Your task to perform on an android device: Show me recent news Image 0: 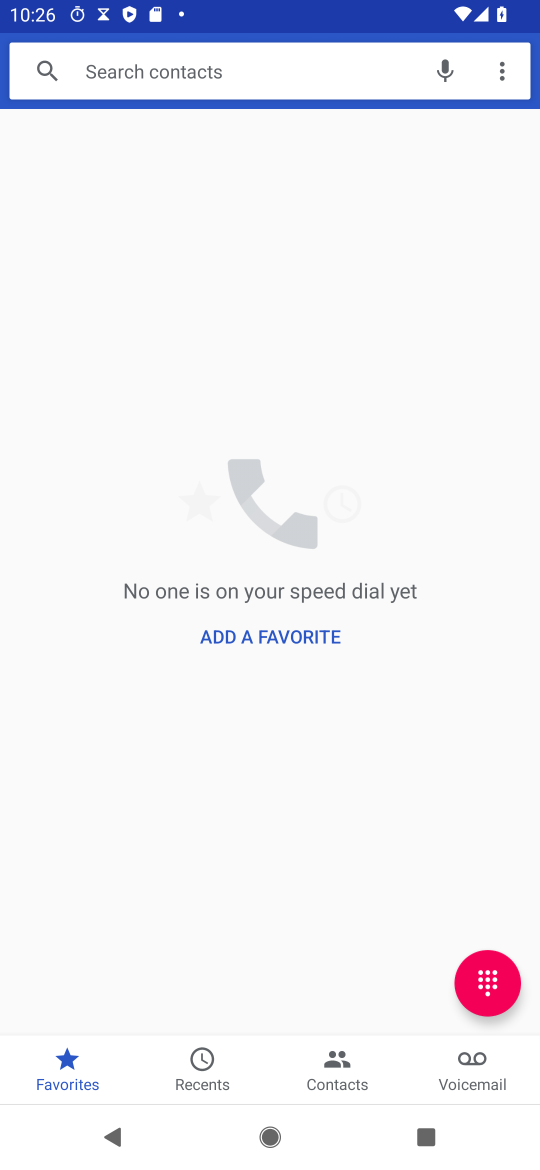
Step 0: press back button
Your task to perform on an android device: Show me recent news Image 1: 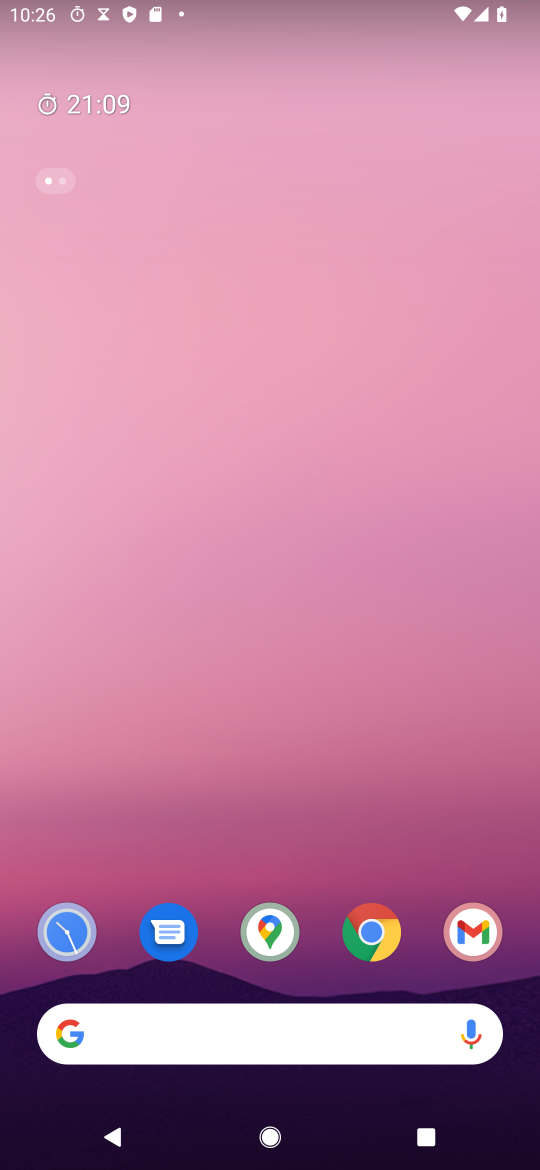
Step 1: click (386, 935)
Your task to perform on an android device: Show me recent news Image 2: 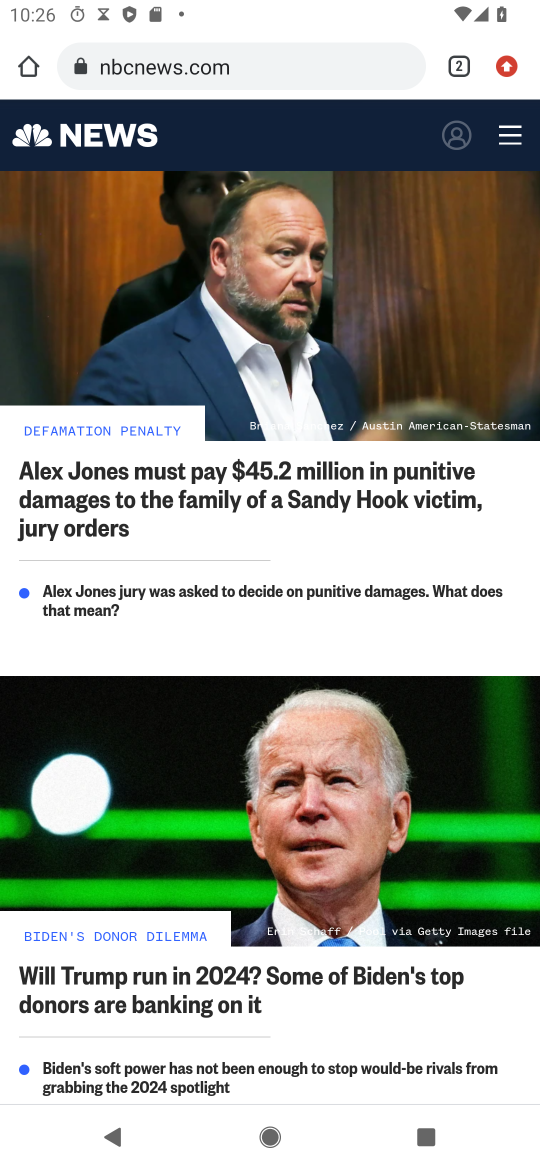
Step 2: click (212, 54)
Your task to perform on an android device: Show me recent news Image 3: 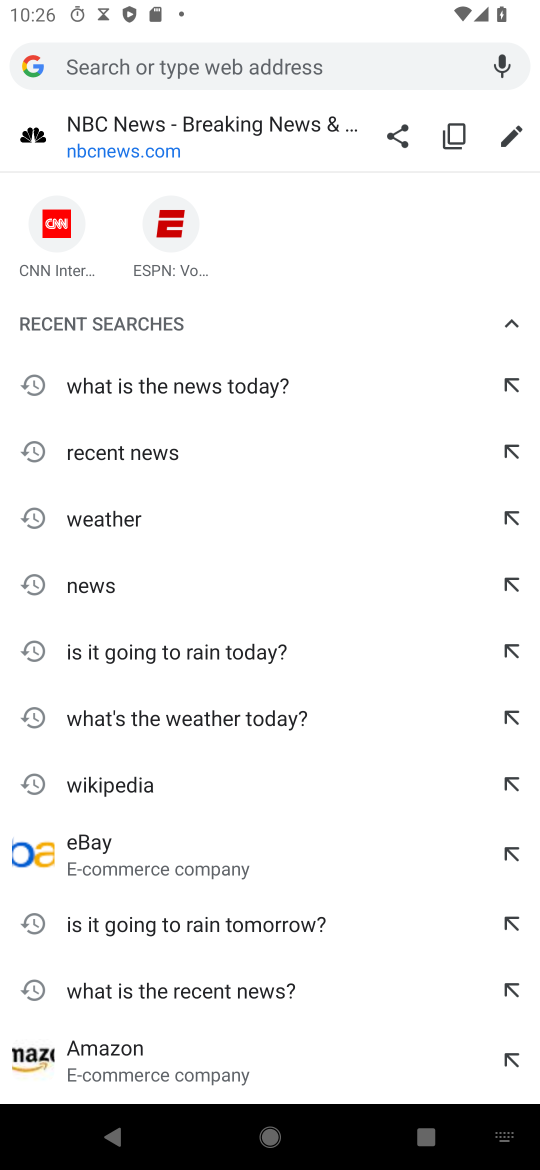
Step 3: click (182, 454)
Your task to perform on an android device: Show me recent news Image 4: 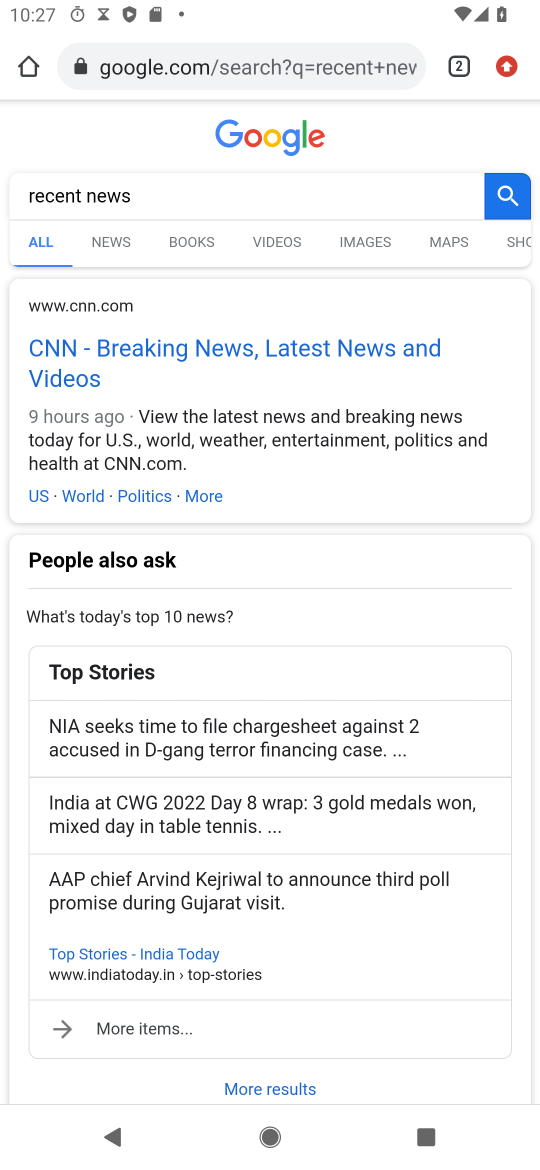
Step 4: click (220, 340)
Your task to perform on an android device: Show me recent news Image 5: 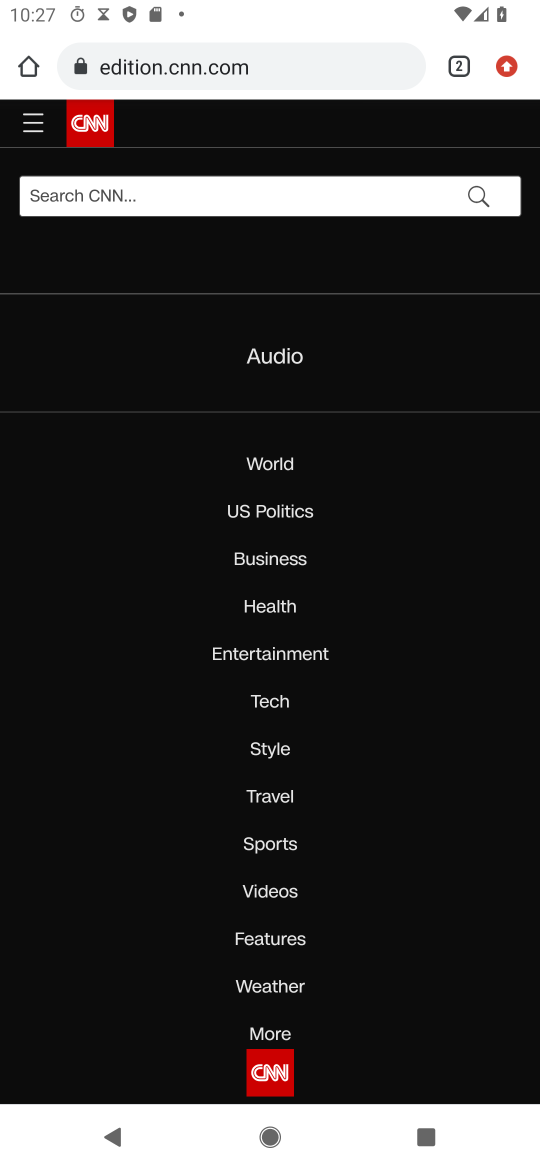
Step 5: task complete